Your task to perform on an android device: see tabs open on other devices in the chrome app Image 0: 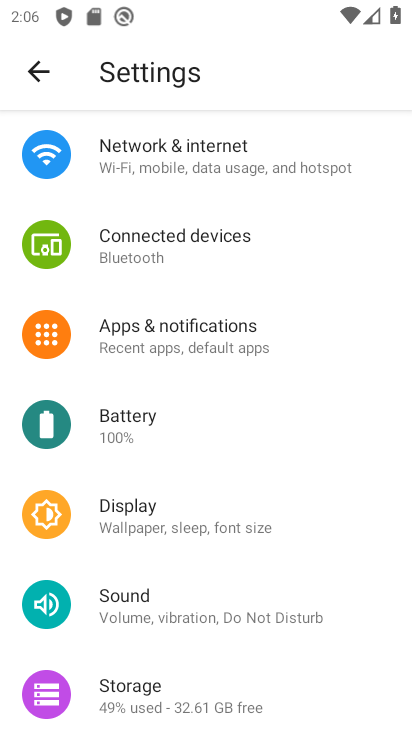
Step 0: press home button
Your task to perform on an android device: see tabs open on other devices in the chrome app Image 1: 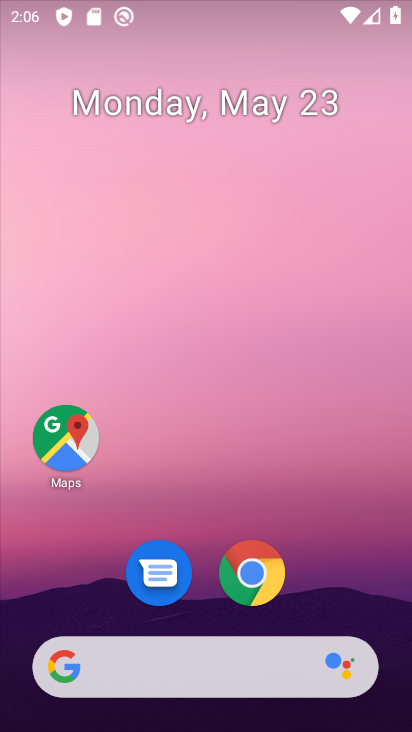
Step 1: drag from (271, 417) to (241, 122)
Your task to perform on an android device: see tabs open on other devices in the chrome app Image 2: 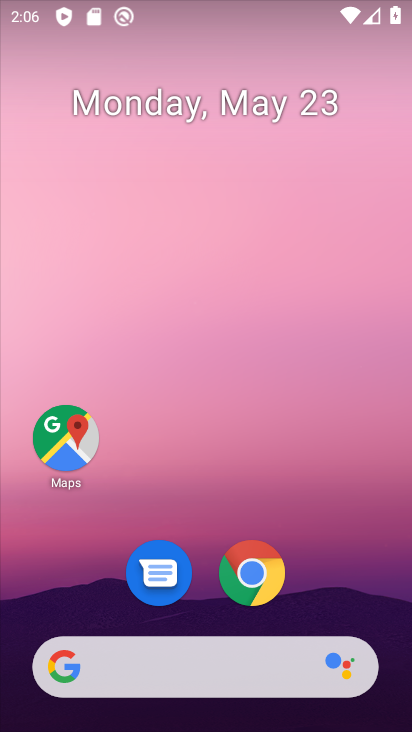
Step 2: drag from (307, 534) to (309, 53)
Your task to perform on an android device: see tabs open on other devices in the chrome app Image 3: 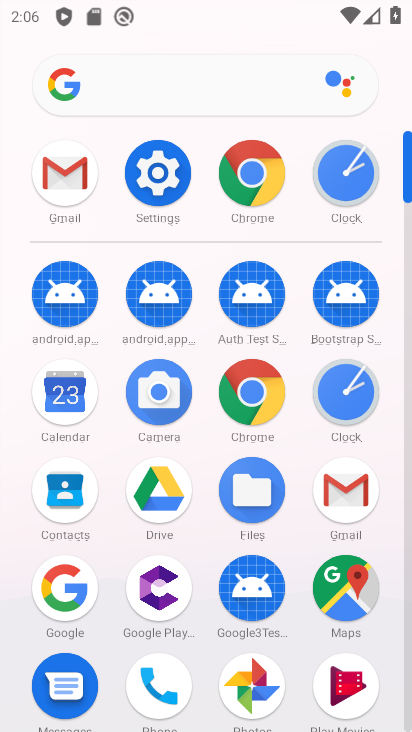
Step 3: click (271, 404)
Your task to perform on an android device: see tabs open on other devices in the chrome app Image 4: 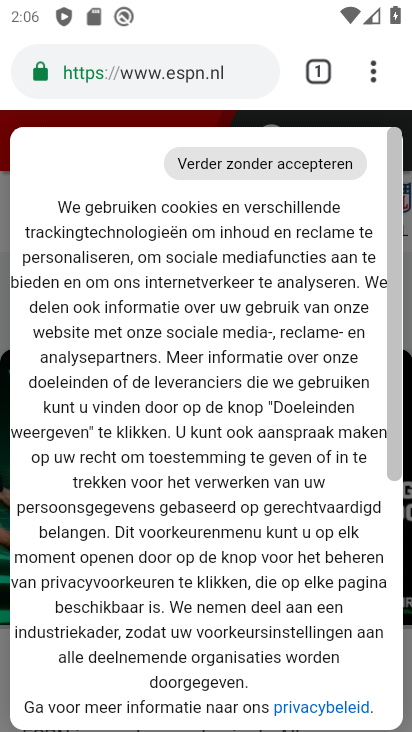
Step 4: task complete